Your task to perform on an android device: check battery use Image 0: 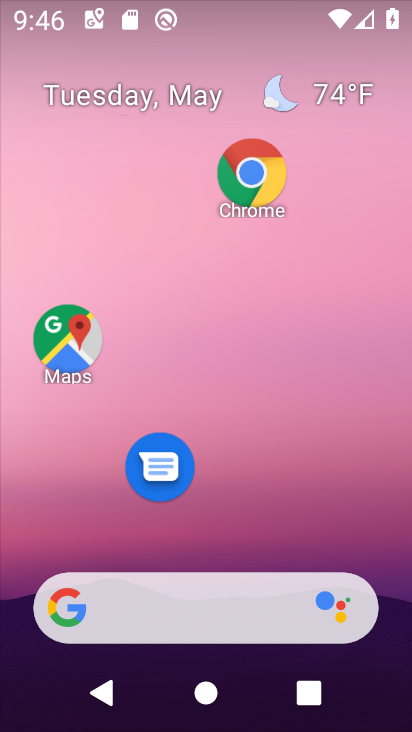
Step 0: drag from (267, 489) to (303, 97)
Your task to perform on an android device: check battery use Image 1: 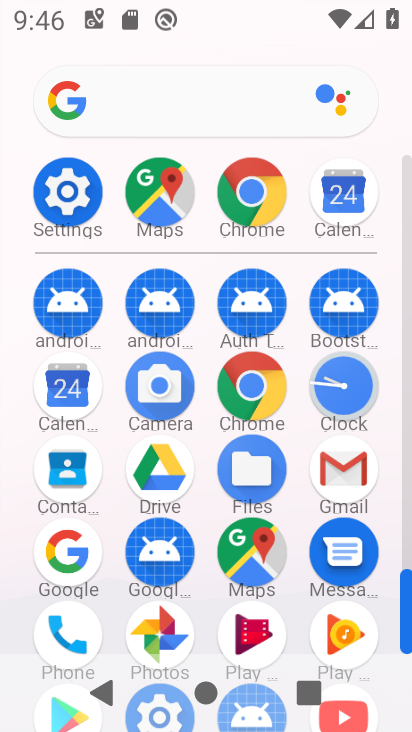
Step 1: click (71, 213)
Your task to perform on an android device: check battery use Image 2: 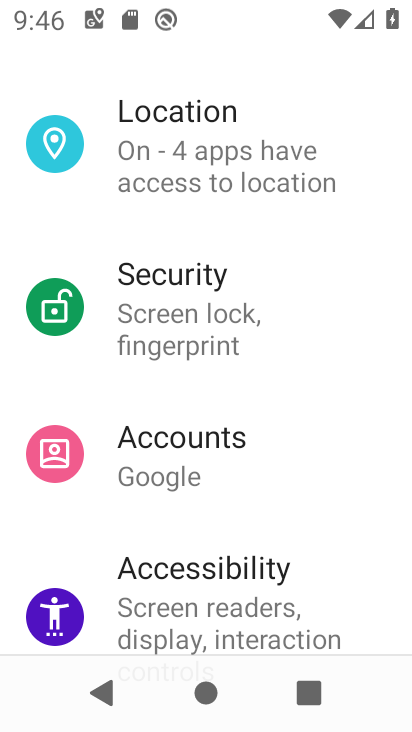
Step 2: drag from (290, 536) to (300, 191)
Your task to perform on an android device: check battery use Image 3: 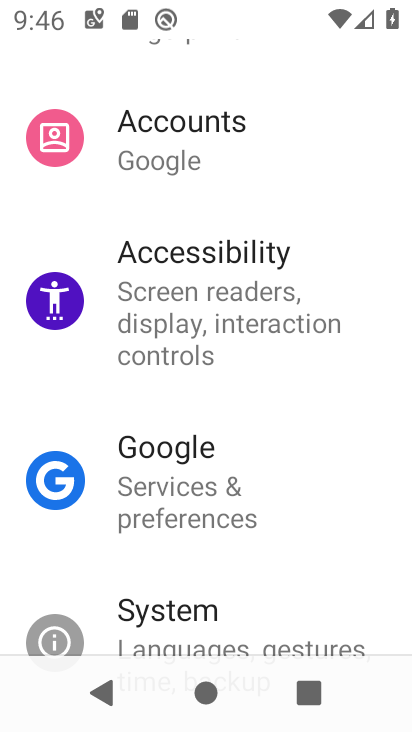
Step 3: drag from (298, 541) to (336, 192)
Your task to perform on an android device: check battery use Image 4: 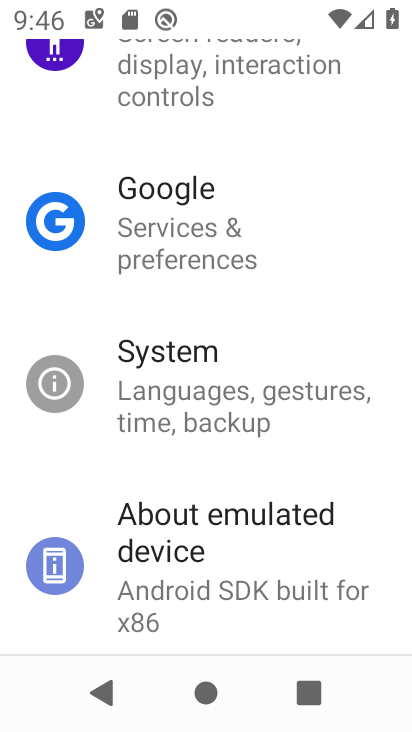
Step 4: drag from (326, 128) to (249, 533)
Your task to perform on an android device: check battery use Image 5: 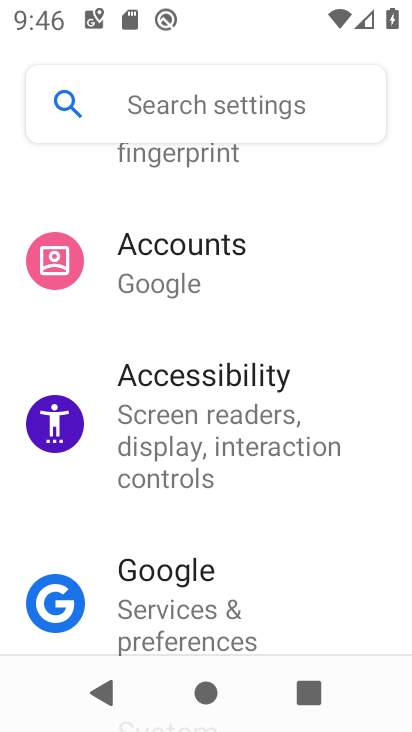
Step 5: drag from (290, 213) to (294, 563)
Your task to perform on an android device: check battery use Image 6: 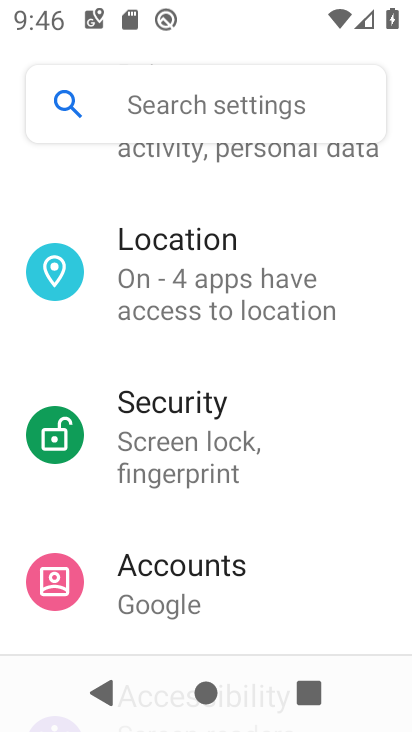
Step 6: drag from (300, 219) to (279, 622)
Your task to perform on an android device: check battery use Image 7: 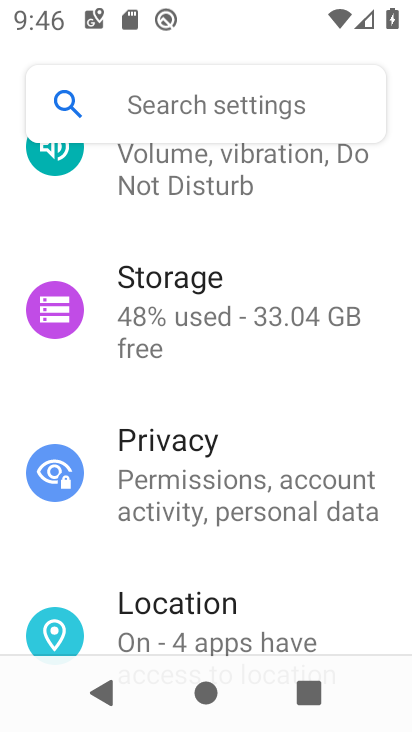
Step 7: drag from (300, 238) to (318, 579)
Your task to perform on an android device: check battery use Image 8: 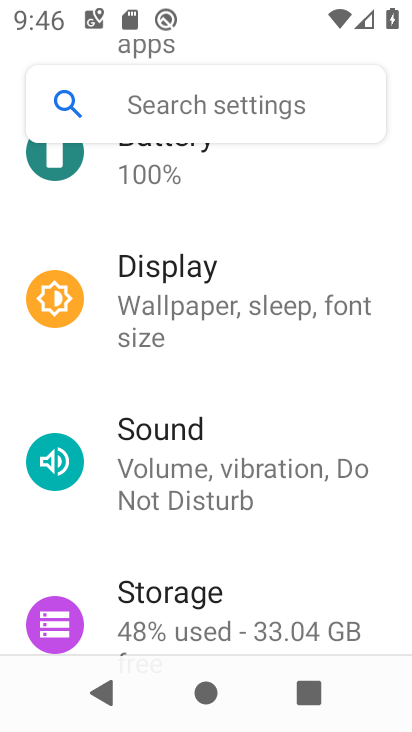
Step 8: drag from (248, 222) to (271, 522)
Your task to perform on an android device: check battery use Image 9: 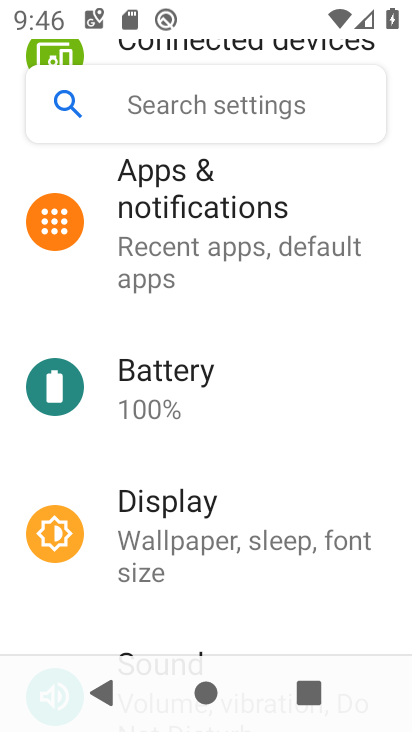
Step 9: click (206, 387)
Your task to perform on an android device: check battery use Image 10: 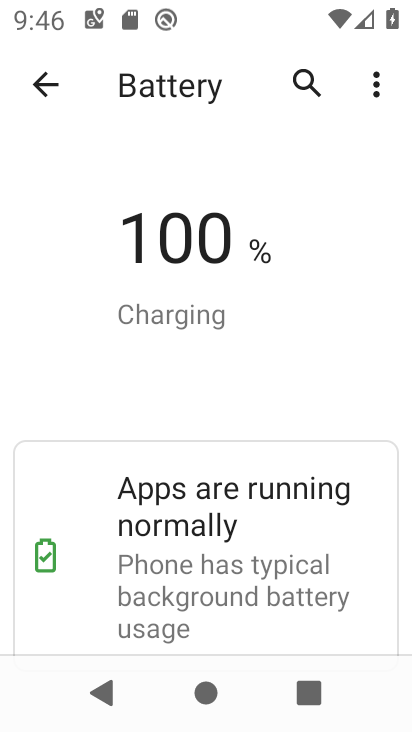
Step 10: task complete